Your task to perform on an android device: empty trash in the gmail app Image 0: 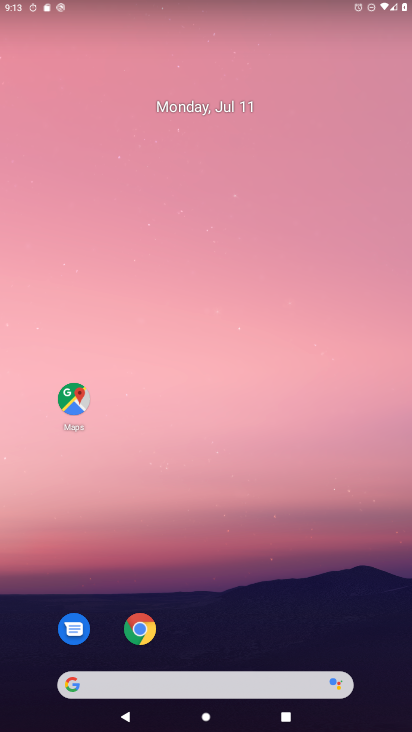
Step 0: drag from (220, 642) to (206, 53)
Your task to perform on an android device: empty trash in the gmail app Image 1: 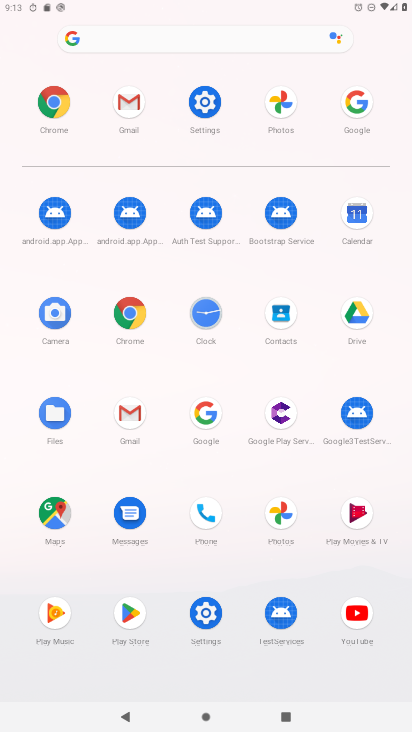
Step 1: click (129, 102)
Your task to perform on an android device: empty trash in the gmail app Image 2: 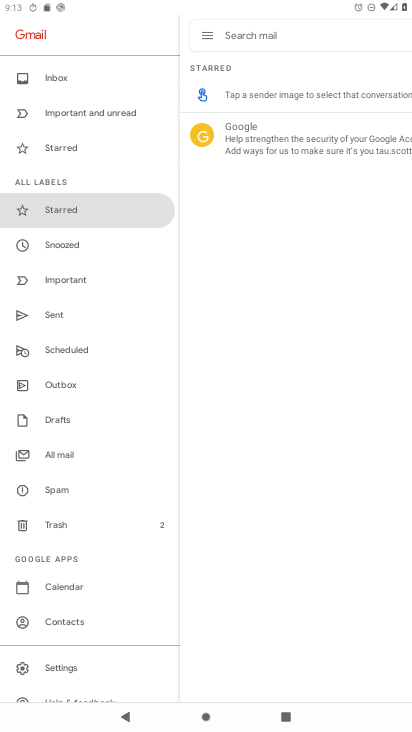
Step 2: click (64, 528)
Your task to perform on an android device: empty trash in the gmail app Image 3: 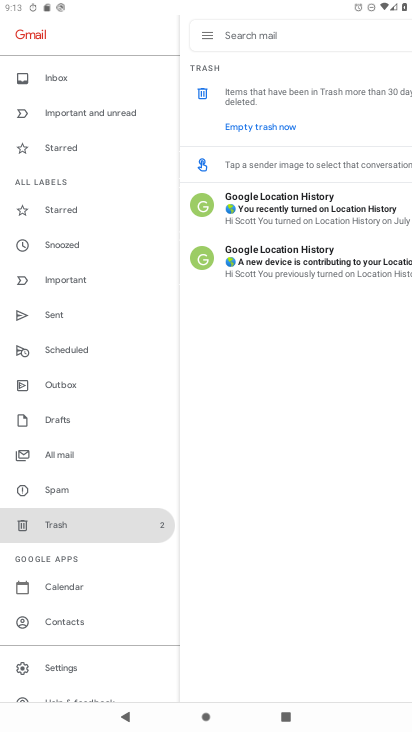
Step 3: drag from (375, 363) to (13, 323)
Your task to perform on an android device: empty trash in the gmail app Image 4: 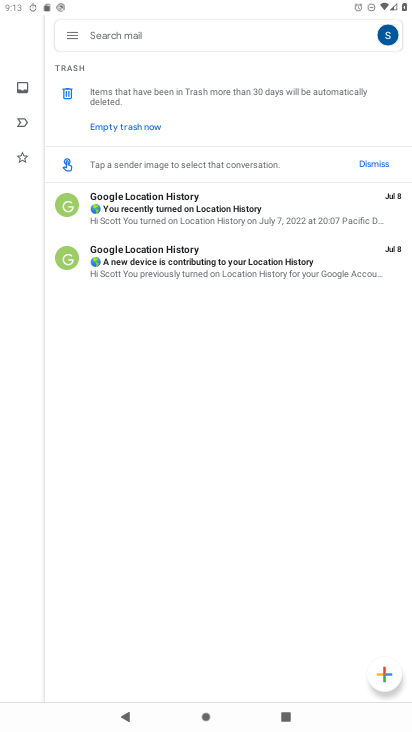
Step 4: click (212, 198)
Your task to perform on an android device: empty trash in the gmail app Image 5: 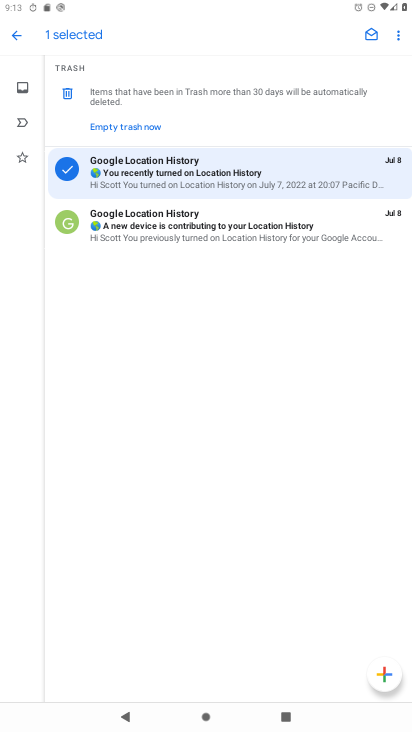
Step 5: click (70, 89)
Your task to perform on an android device: empty trash in the gmail app Image 6: 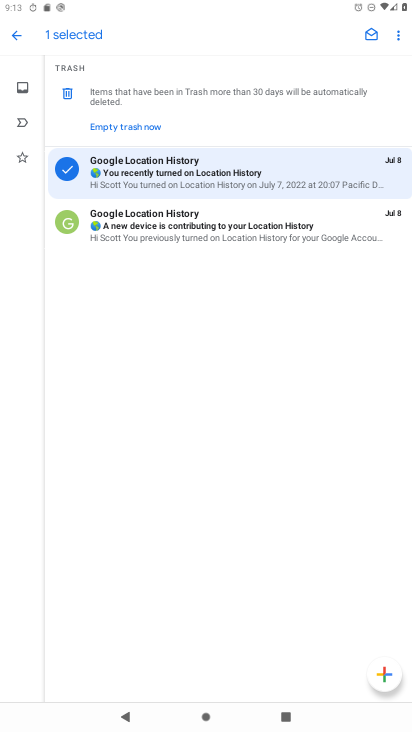
Step 6: click (66, 91)
Your task to perform on an android device: empty trash in the gmail app Image 7: 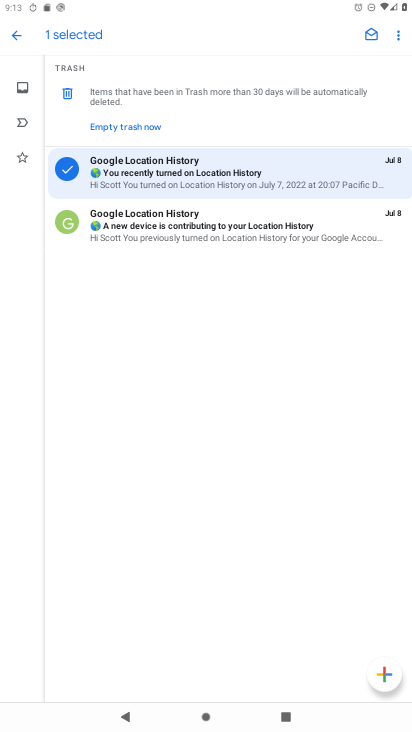
Step 7: click (157, 227)
Your task to perform on an android device: empty trash in the gmail app Image 8: 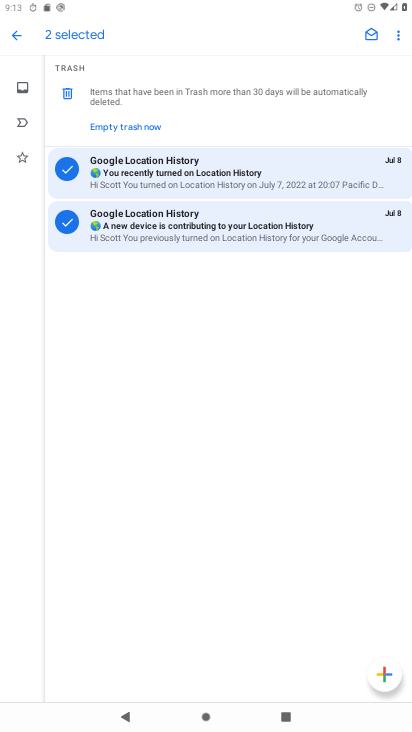
Step 8: click (63, 91)
Your task to perform on an android device: empty trash in the gmail app Image 9: 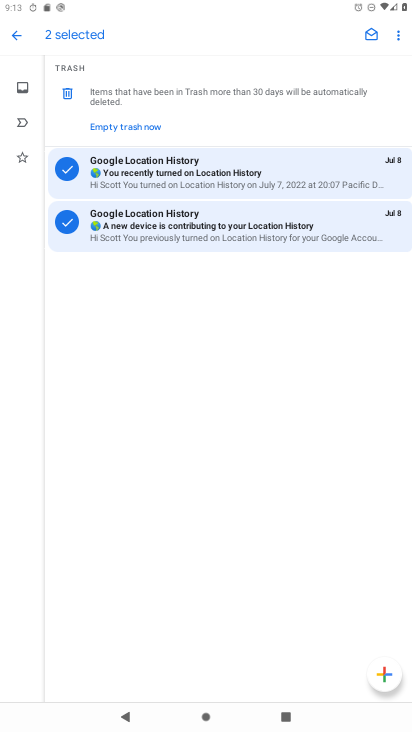
Step 9: click (72, 93)
Your task to perform on an android device: empty trash in the gmail app Image 10: 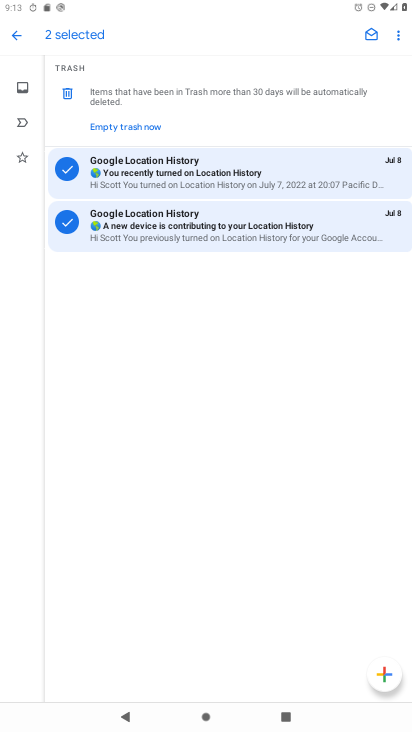
Step 10: click (134, 125)
Your task to perform on an android device: empty trash in the gmail app Image 11: 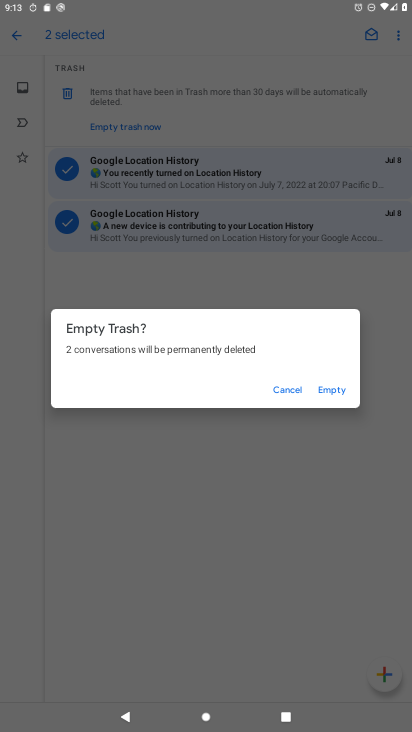
Step 11: click (327, 390)
Your task to perform on an android device: empty trash in the gmail app Image 12: 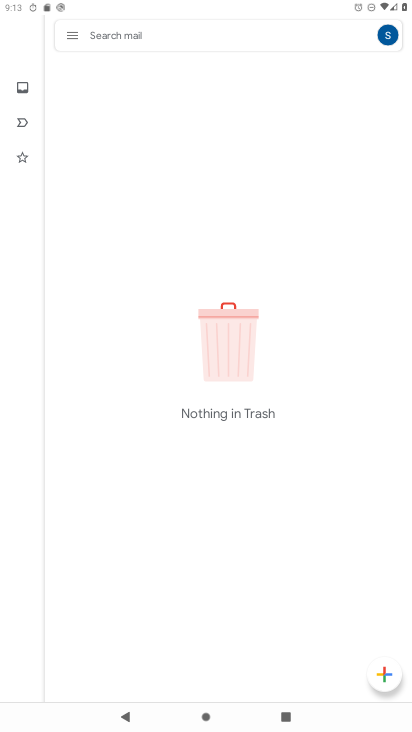
Step 12: task complete